Your task to perform on an android device: Go to display settings Image 0: 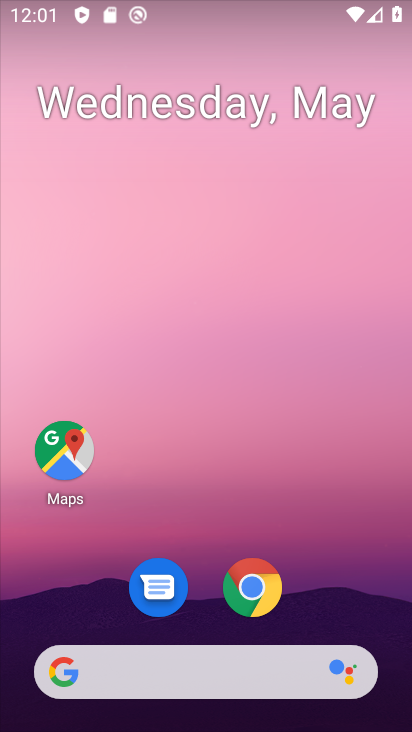
Step 0: drag from (354, 548) to (253, 123)
Your task to perform on an android device: Go to display settings Image 1: 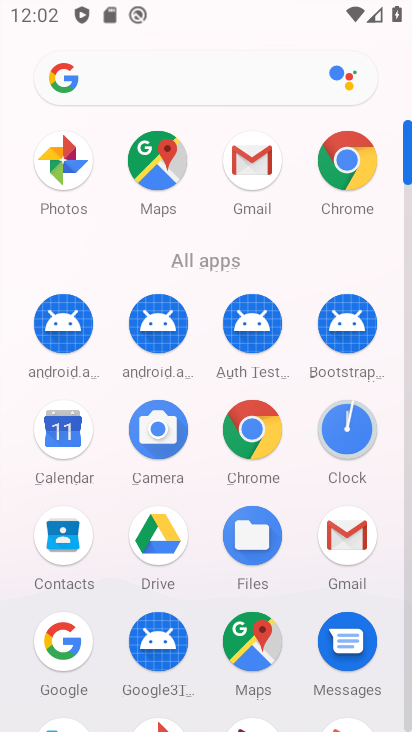
Step 1: drag from (212, 258) to (156, 28)
Your task to perform on an android device: Go to display settings Image 2: 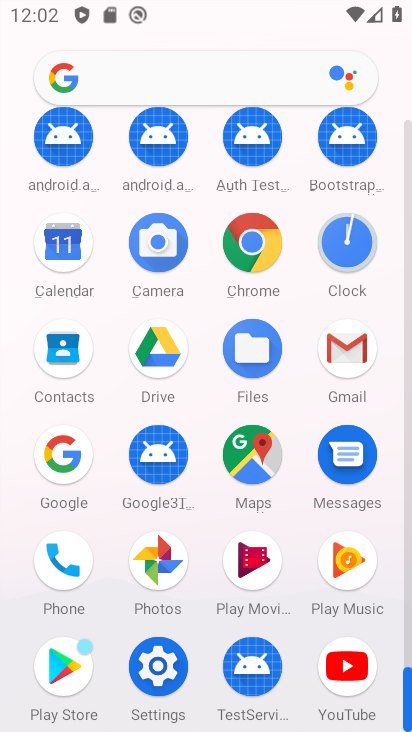
Step 2: click (166, 676)
Your task to perform on an android device: Go to display settings Image 3: 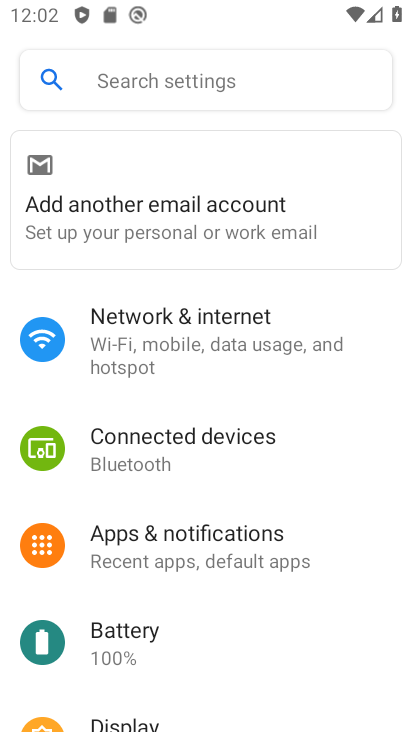
Step 3: drag from (214, 686) to (168, 569)
Your task to perform on an android device: Go to display settings Image 4: 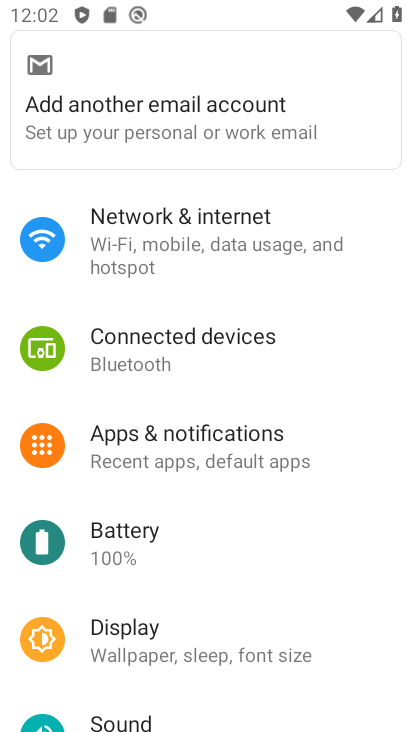
Step 4: click (182, 630)
Your task to perform on an android device: Go to display settings Image 5: 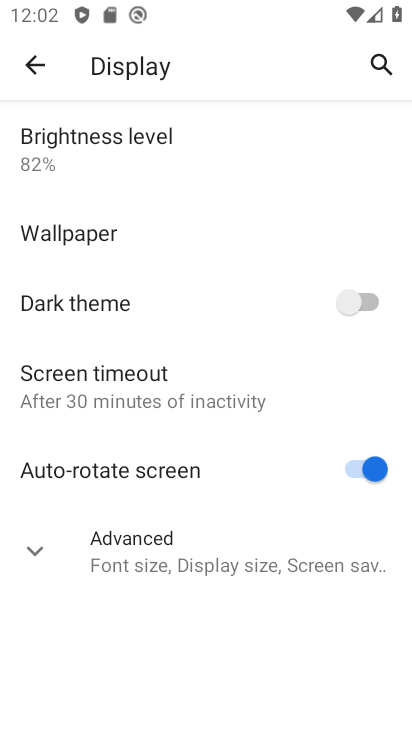
Step 5: task complete